Your task to perform on an android device: find which apps use the phone's location Image 0: 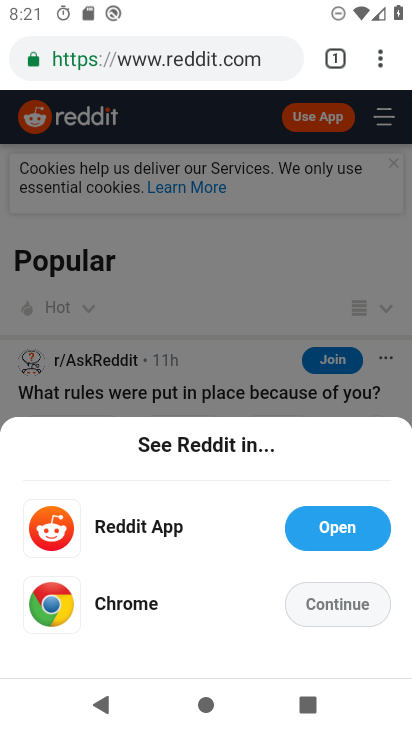
Step 0: press home button
Your task to perform on an android device: find which apps use the phone's location Image 1: 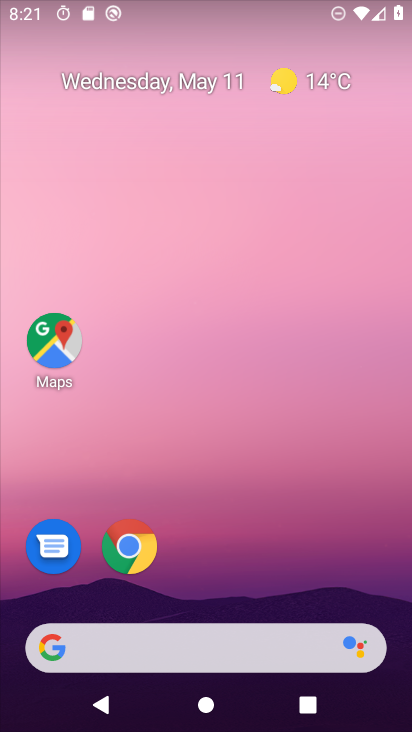
Step 1: drag from (212, 664) to (152, 90)
Your task to perform on an android device: find which apps use the phone's location Image 2: 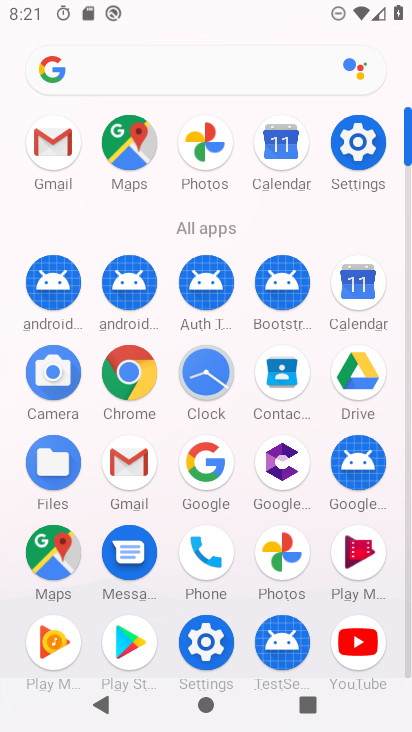
Step 2: click (206, 629)
Your task to perform on an android device: find which apps use the phone's location Image 3: 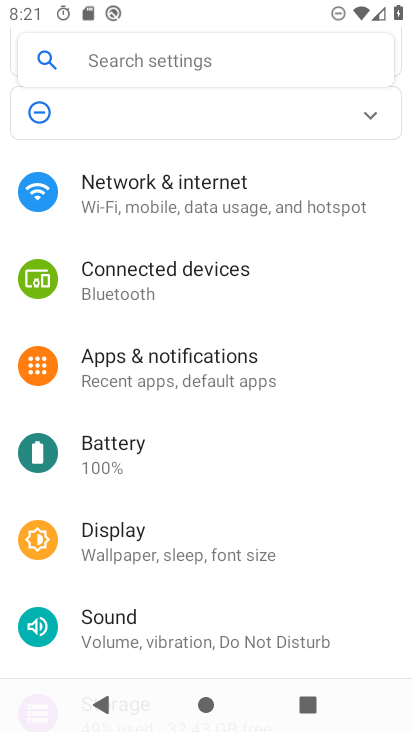
Step 3: drag from (207, 562) to (190, 30)
Your task to perform on an android device: find which apps use the phone's location Image 4: 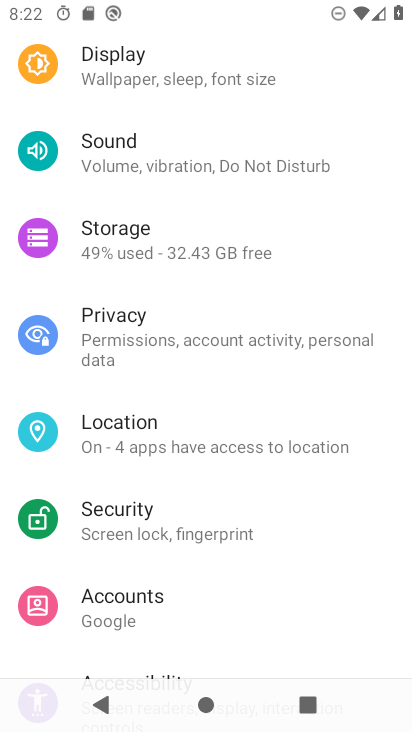
Step 4: click (216, 418)
Your task to perform on an android device: find which apps use the phone's location Image 5: 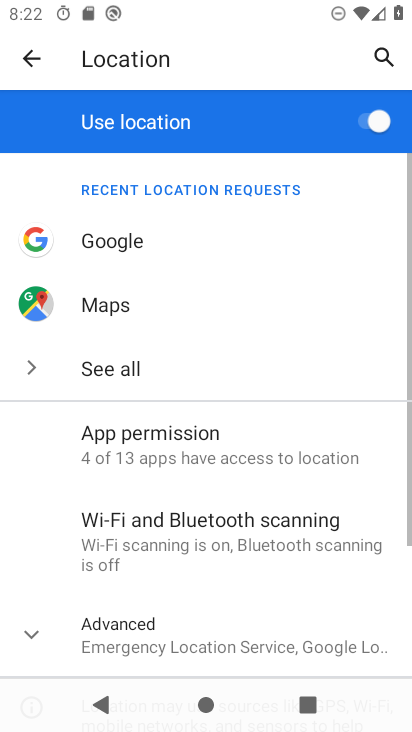
Step 5: click (171, 441)
Your task to perform on an android device: find which apps use the phone's location Image 6: 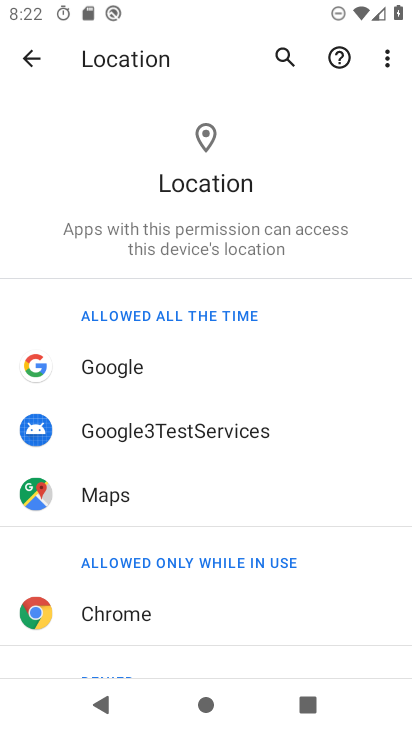
Step 6: task complete